Your task to perform on an android device: Open Yahoo.com Image 0: 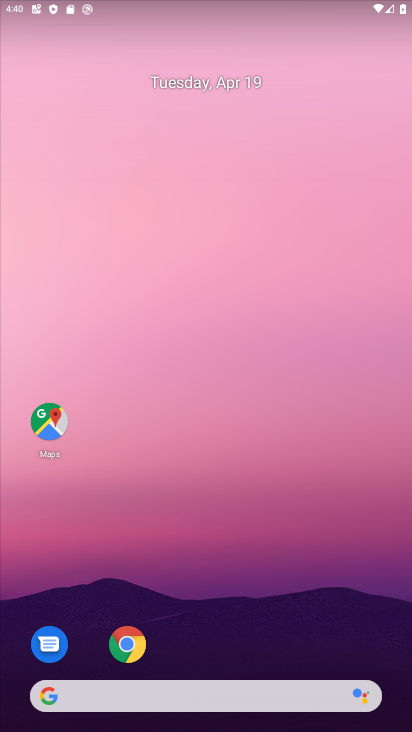
Step 0: click (137, 650)
Your task to perform on an android device: Open Yahoo.com Image 1: 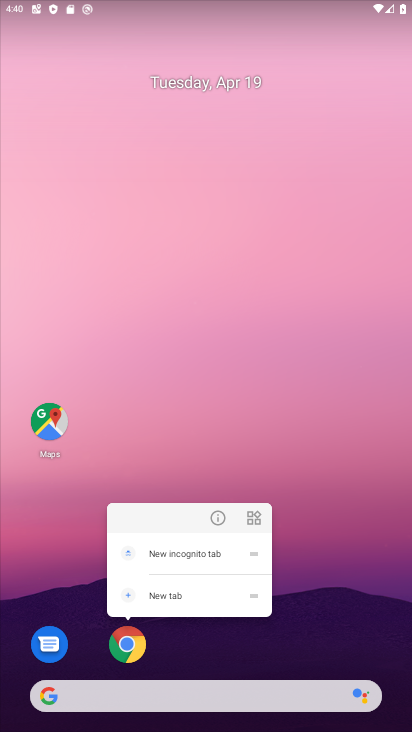
Step 1: click (127, 640)
Your task to perform on an android device: Open Yahoo.com Image 2: 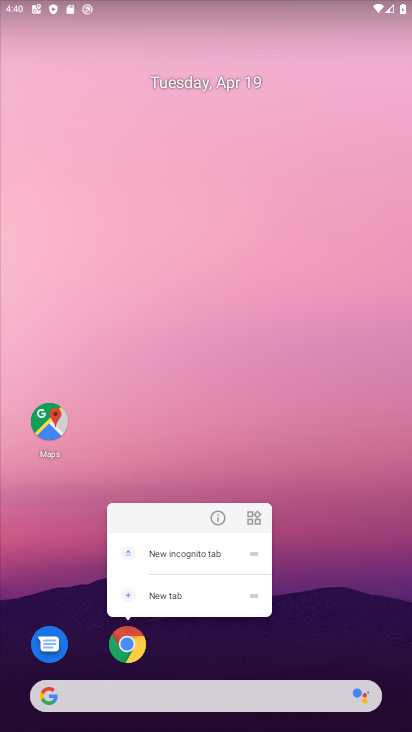
Step 2: click (127, 640)
Your task to perform on an android device: Open Yahoo.com Image 3: 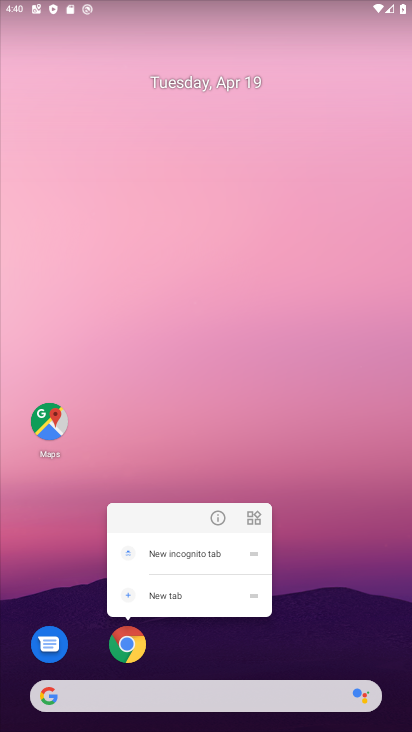
Step 3: click (128, 656)
Your task to perform on an android device: Open Yahoo.com Image 4: 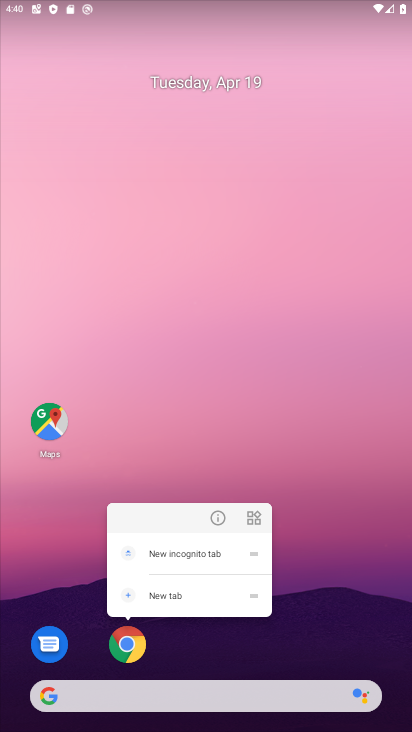
Step 4: click (126, 658)
Your task to perform on an android device: Open Yahoo.com Image 5: 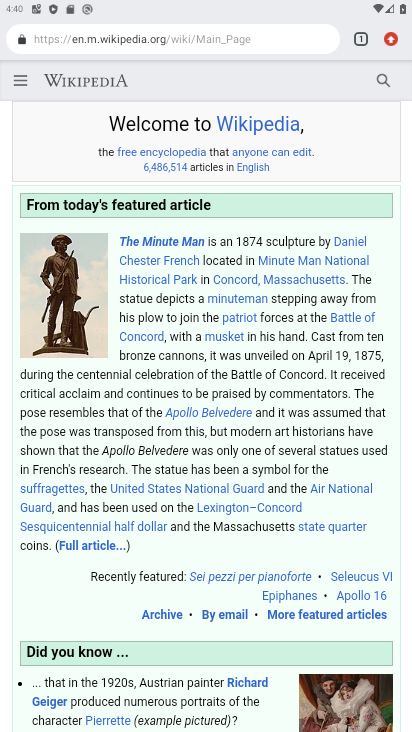
Step 5: click (260, 35)
Your task to perform on an android device: Open Yahoo.com Image 6: 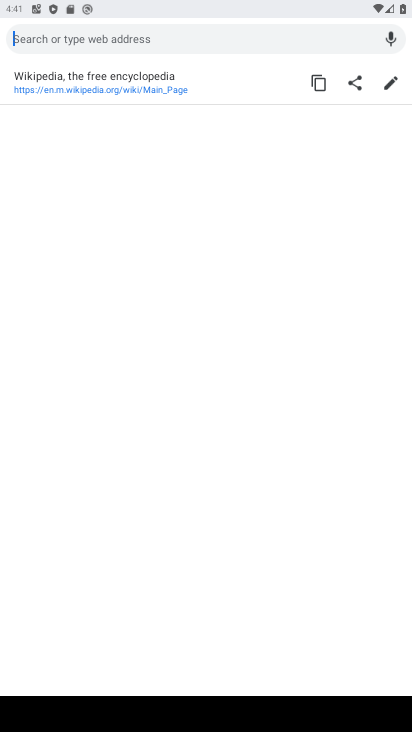
Step 6: type "yahoo.com"
Your task to perform on an android device: Open Yahoo.com Image 7: 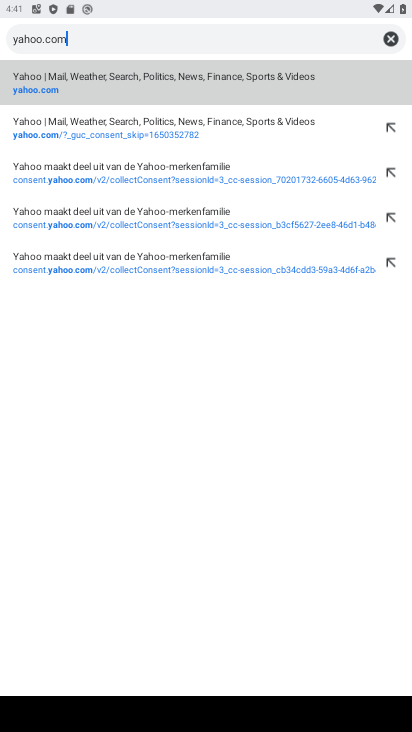
Step 7: click (76, 78)
Your task to perform on an android device: Open Yahoo.com Image 8: 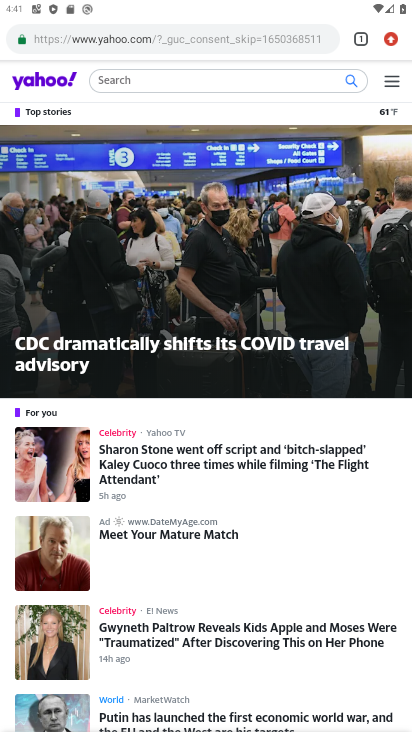
Step 8: task complete